Your task to perform on an android device: add a contact in the contacts app Image 0: 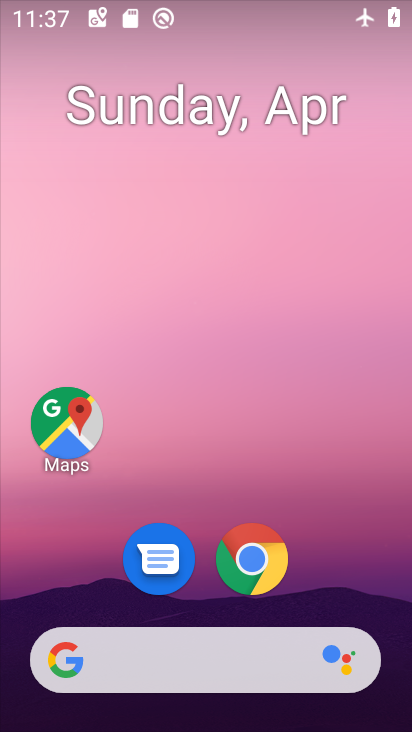
Step 0: drag from (333, 535) to (305, 51)
Your task to perform on an android device: add a contact in the contacts app Image 1: 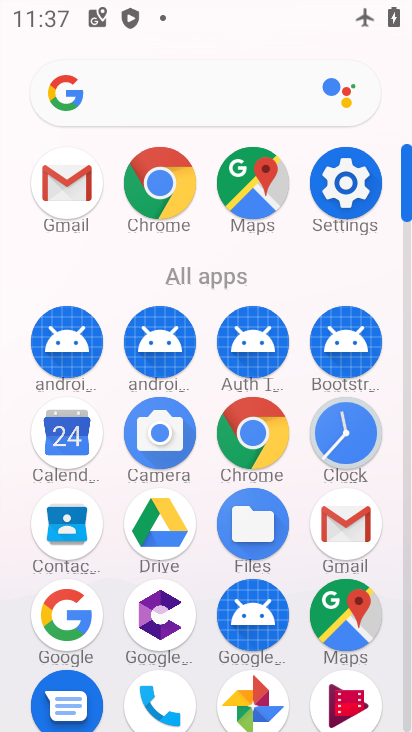
Step 1: click (53, 522)
Your task to perform on an android device: add a contact in the contacts app Image 2: 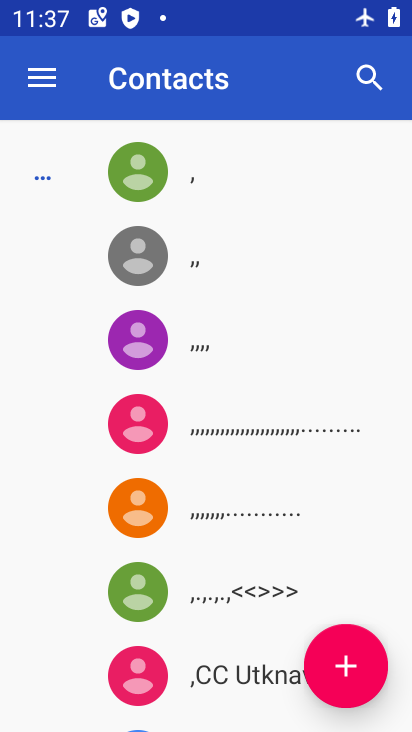
Step 2: click (331, 677)
Your task to perform on an android device: add a contact in the contacts app Image 3: 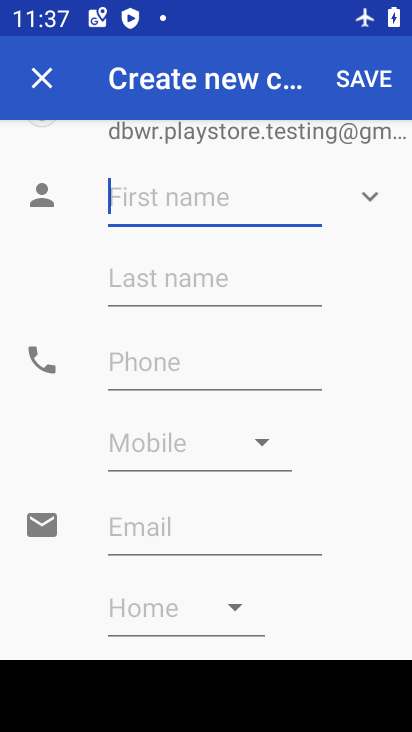
Step 3: type "uyfcxzftyujh"
Your task to perform on an android device: add a contact in the contacts app Image 4: 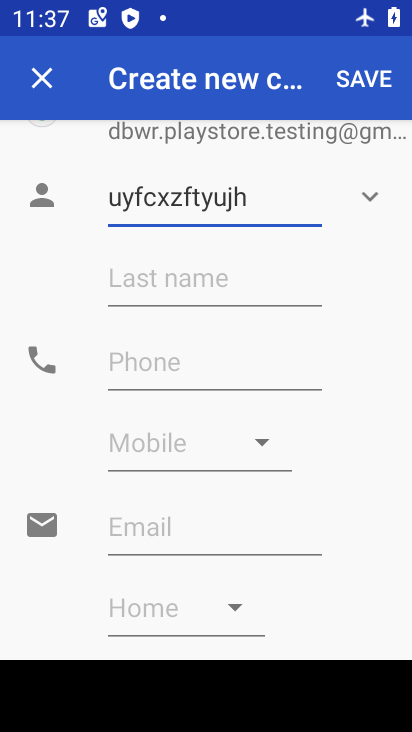
Step 4: click (158, 353)
Your task to perform on an android device: add a contact in the contacts app Image 5: 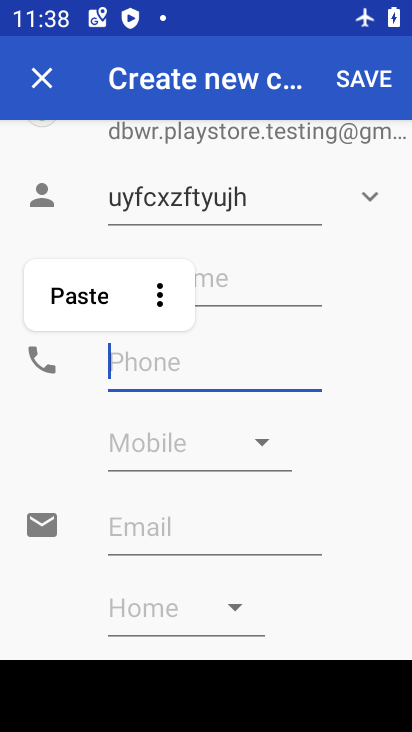
Step 5: type "67589754578"
Your task to perform on an android device: add a contact in the contacts app Image 6: 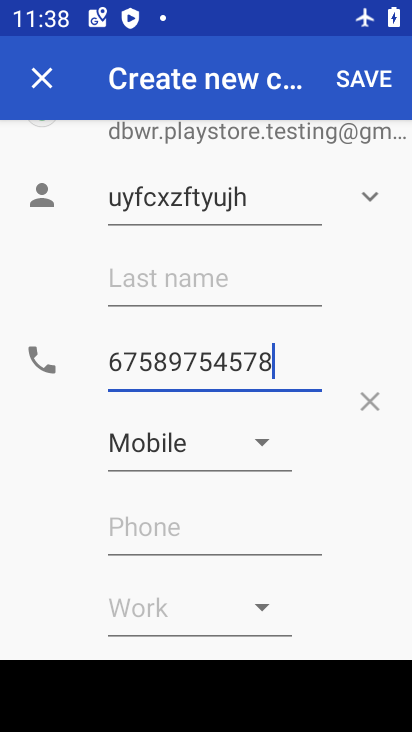
Step 6: click (366, 82)
Your task to perform on an android device: add a contact in the contacts app Image 7: 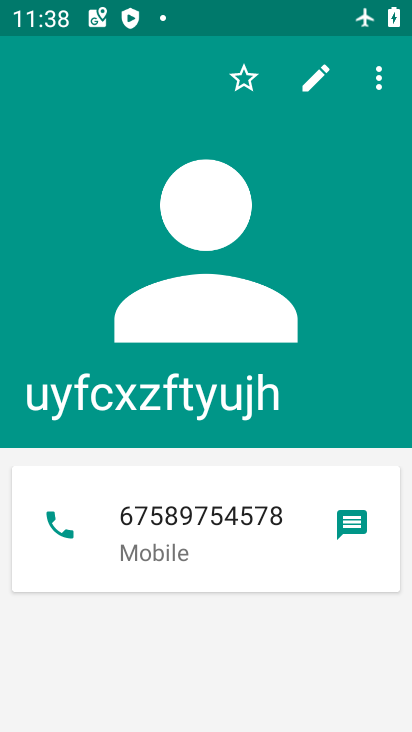
Step 7: task complete